Your task to perform on an android device: What's the weather? Image 0: 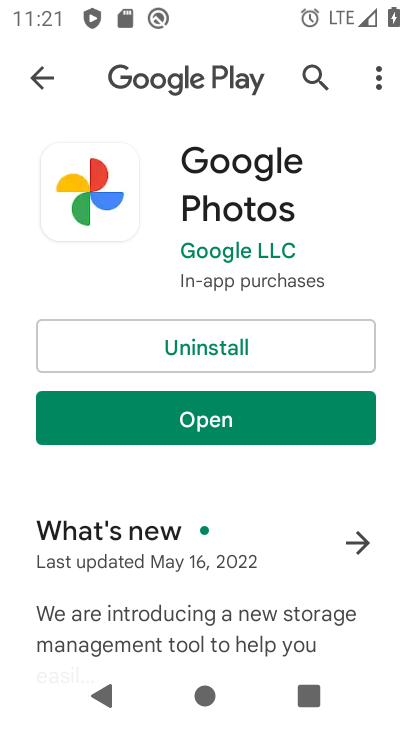
Step 0: press home button
Your task to perform on an android device: What's the weather? Image 1: 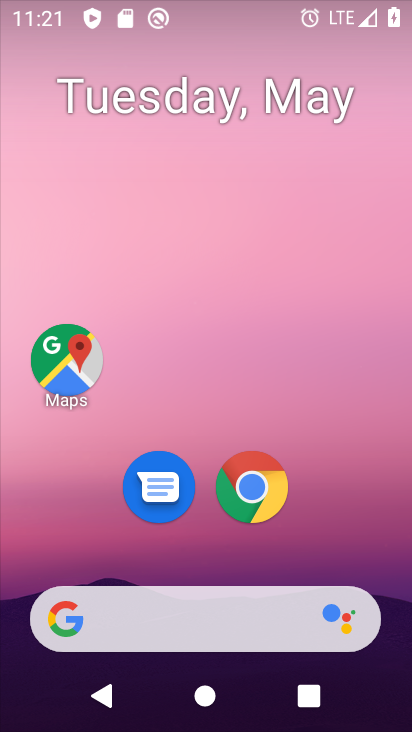
Step 1: drag from (229, 580) to (260, 204)
Your task to perform on an android device: What's the weather? Image 2: 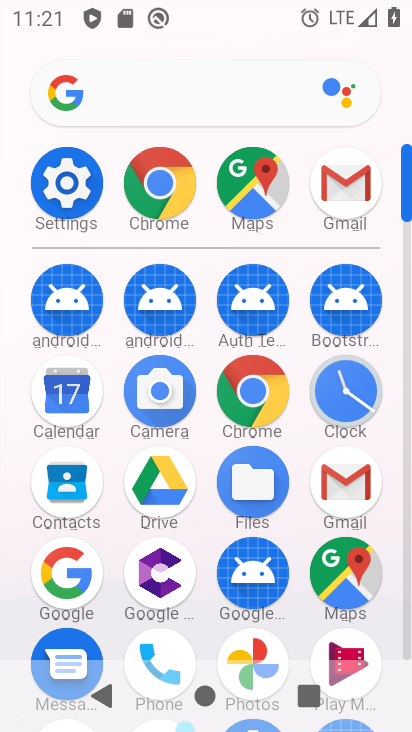
Step 2: click (177, 103)
Your task to perform on an android device: What's the weather? Image 3: 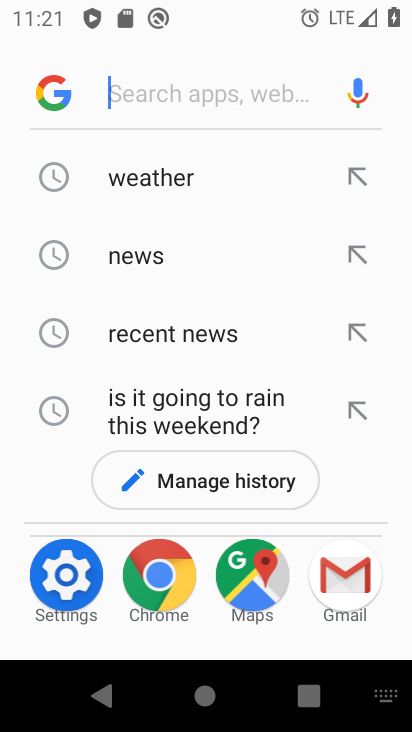
Step 3: click (156, 193)
Your task to perform on an android device: What's the weather? Image 4: 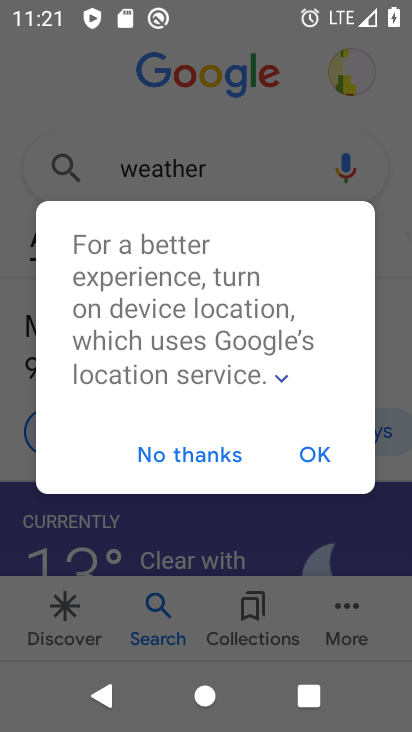
Step 4: drag from (196, 537) to (243, 160)
Your task to perform on an android device: What's the weather? Image 5: 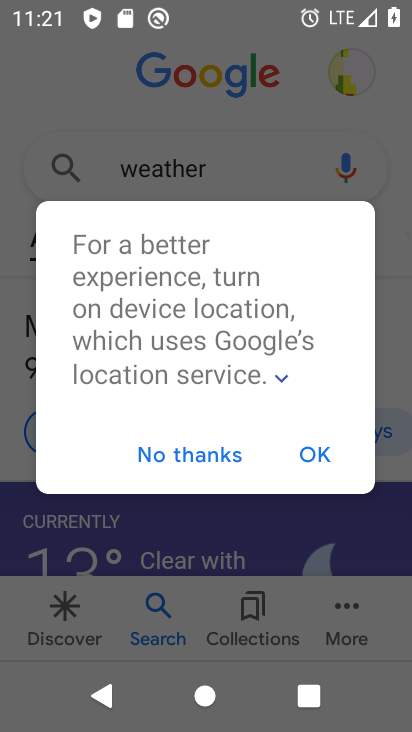
Step 5: click (305, 448)
Your task to perform on an android device: What's the weather? Image 6: 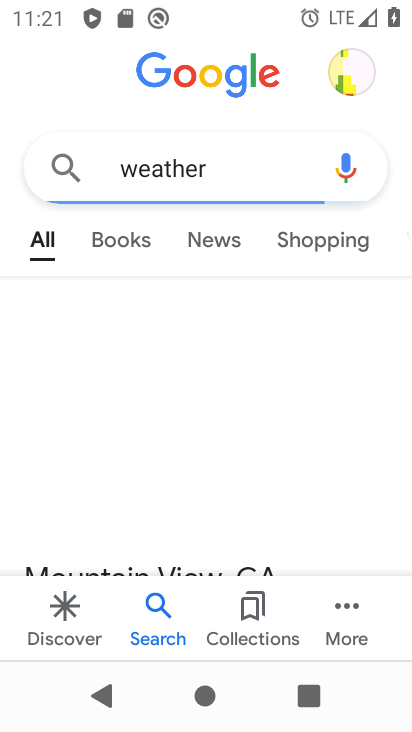
Step 6: task complete